Your task to perform on an android device: What is the recent news? Image 0: 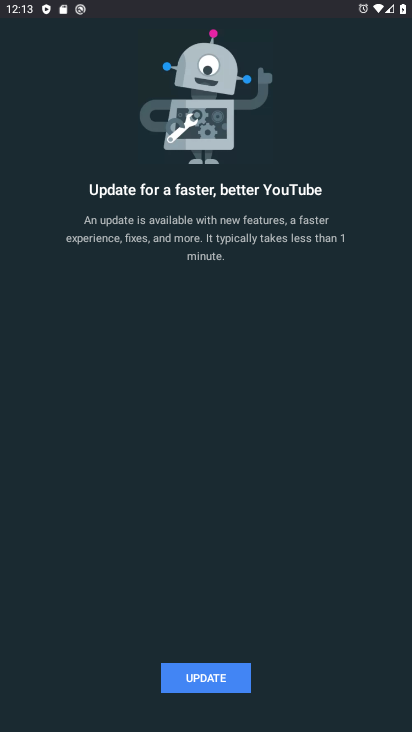
Step 0: press home button
Your task to perform on an android device: What is the recent news? Image 1: 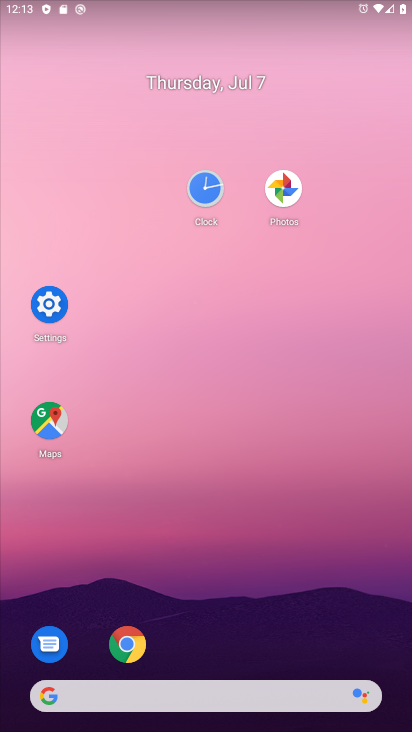
Step 1: drag from (220, 633) to (225, 206)
Your task to perform on an android device: What is the recent news? Image 2: 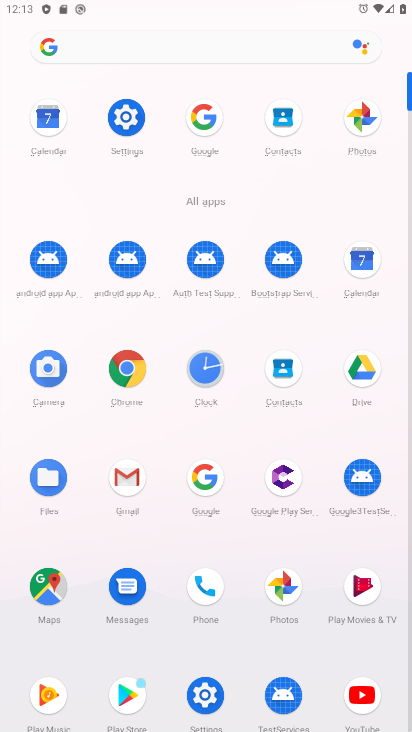
Step 2: click (198, 474)
Your task to perform on an android device: What is the recent news? Image 3: 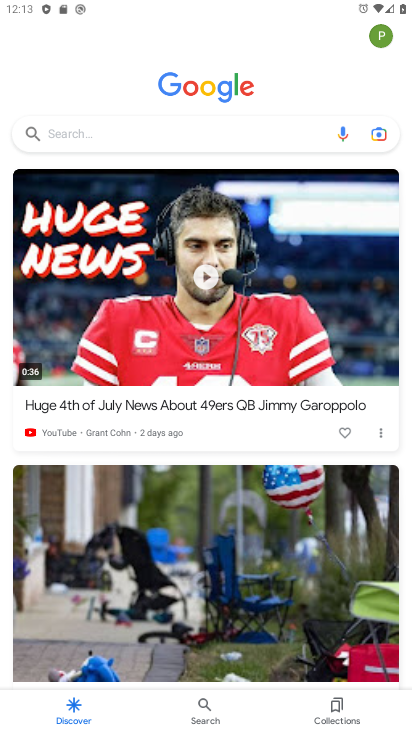
Step 3: click (195, 124)
Your task to perform on an android device: What is the recent news? Image 4: 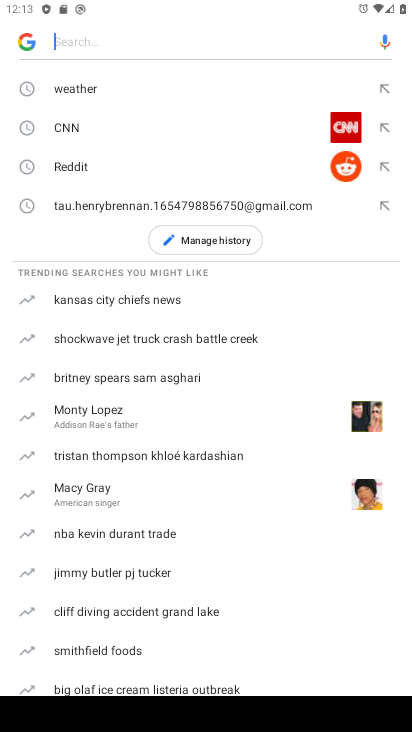
Step 4: type "recent news"
Your task to perform on an android device: What is the recent news? Image 5: 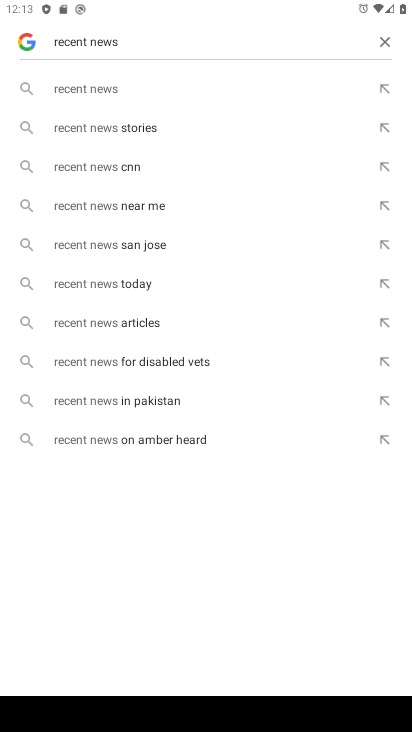
Step 5: click (100, 79)
Your task to perform on an android device: What is the recent news? Image 6: 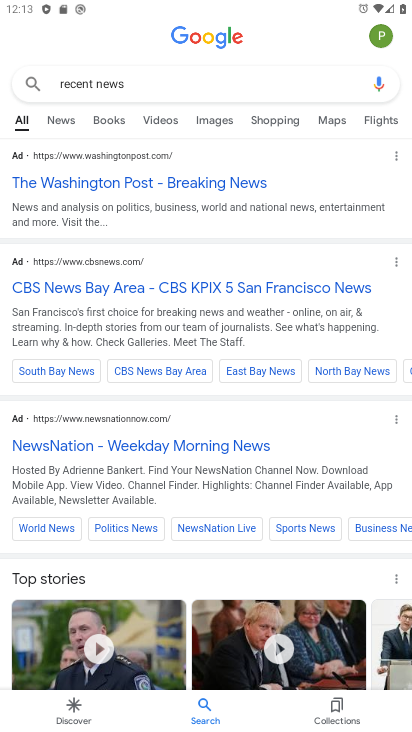
Step 6: task complete